Your task to perform on an android device: see tabs open on other devices in the chrome app Image 0: 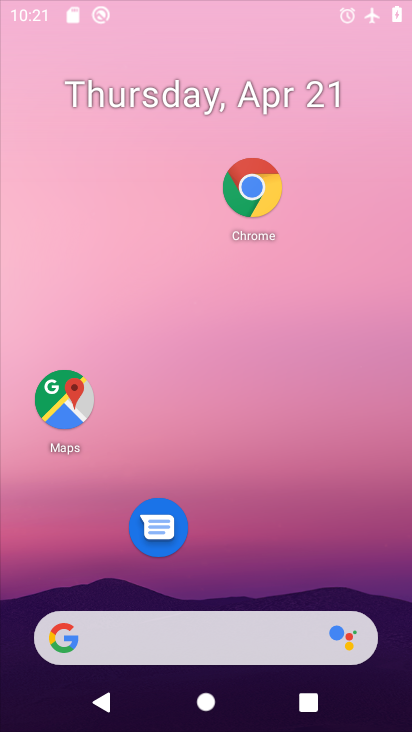
Step 0: drag from (290, 511) to (317, 221)
Your task to perform on an android device: see tabs open on other devices in the chrome app Image 1: 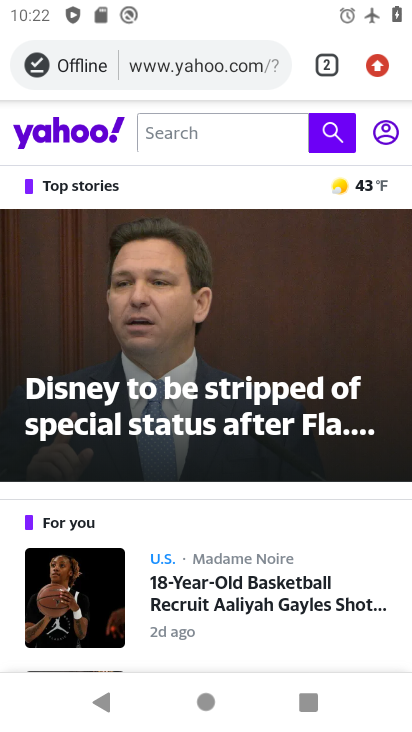
Step 1: task complete